Your task to perform on an android device: Find coffee shops on Maps Image 0: 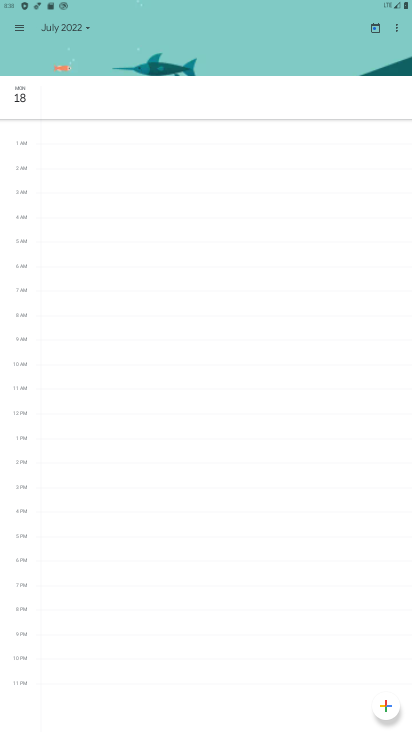
Step 0: press home button
Your task to perform on an android device: Find coffee shops on Maps Image 1: 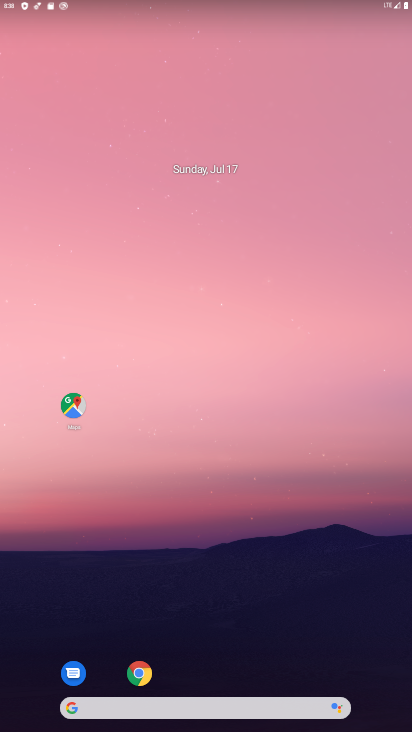
Step 1: click (78, 402)
Your task to perform on an android device: Find coffee shops on Maps Image 2: 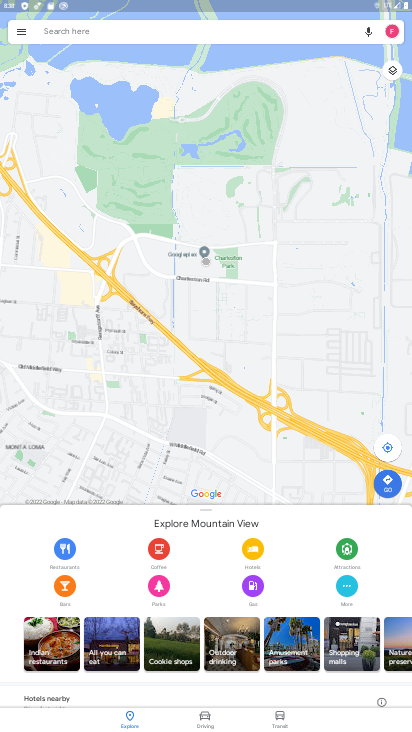
Step 2: click (103, 25)
Your task to perform on an android device: Find coffee shops on Maps Image 3: 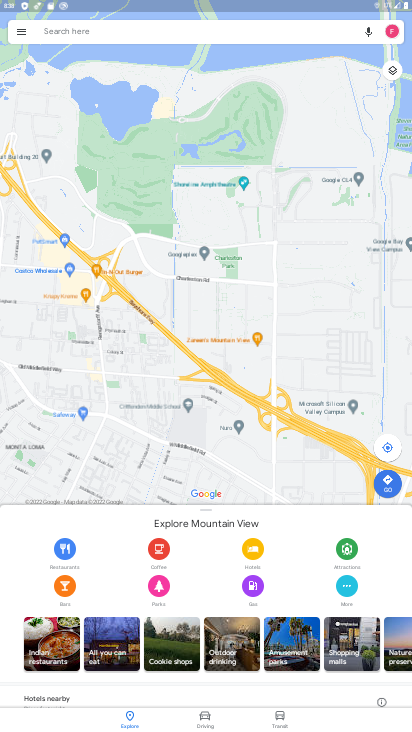
Step 3: click (112, 40)
Your task to perform on an android device: Find coffee shops on Maps Image 4: 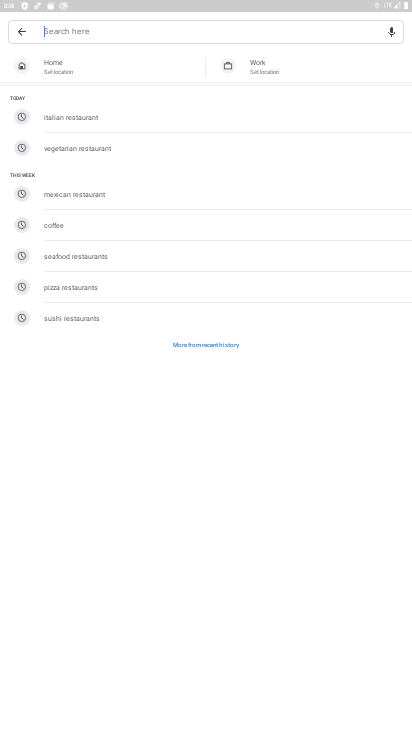
Step 4: click (63, 30)
Your task to perform on an android device: Find coffee shops on Maps Image 5: 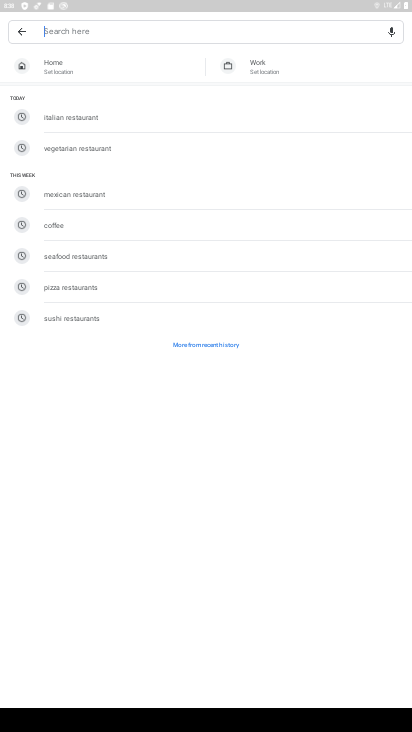
Step 5: click (68, 224)
Your task to perform on an android device: Find coffee shops on Maps Image 6: 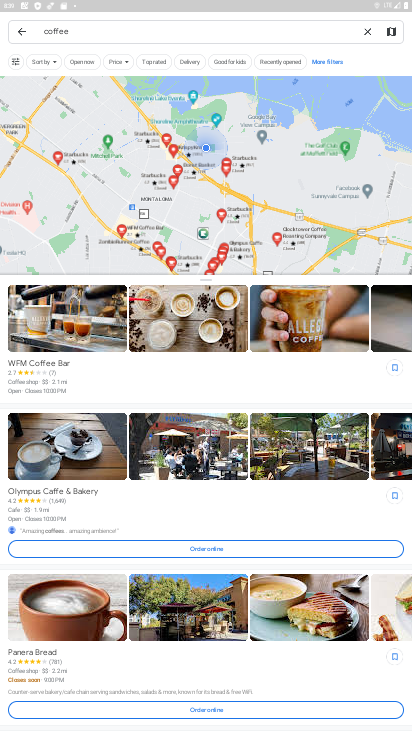
Step 6: task complete